Your task to perform on an android device: Open Google Chrome and click the shortcut for Amazon.com Image 0: 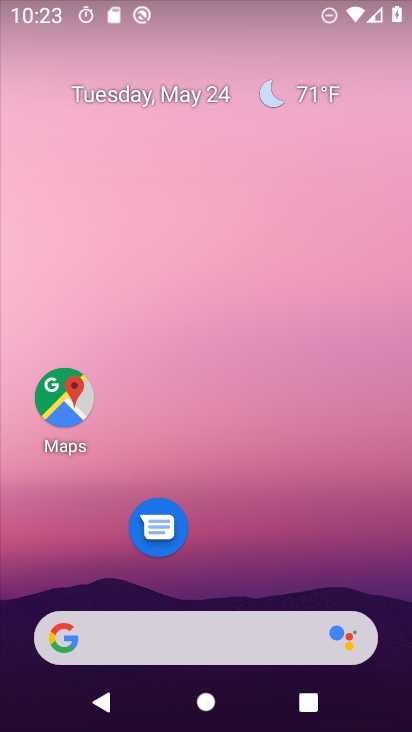
Step 0: drag from (271, 540) to (303, 112)
Your task to perform on an android device: Open Google Chrome and click the shortcut for Amazon.com Image 1: 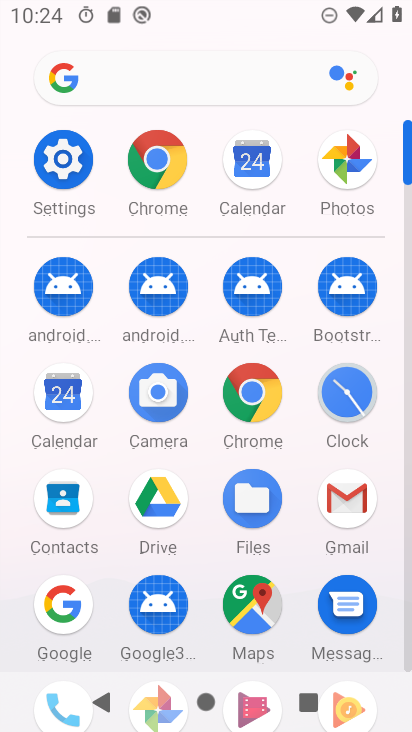
Step 1: click (256, 388)
Your task to perform on an android device: Open Google Chrome and click the shortcut for Amazon.com Image 2: 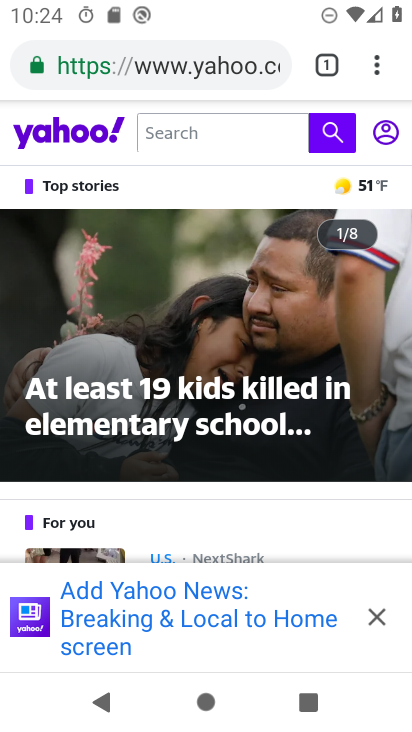
Step 2: press back button
Your task to perform on an android device: Open Google Chrome and click the shortcut for Amazon.com Image 3: 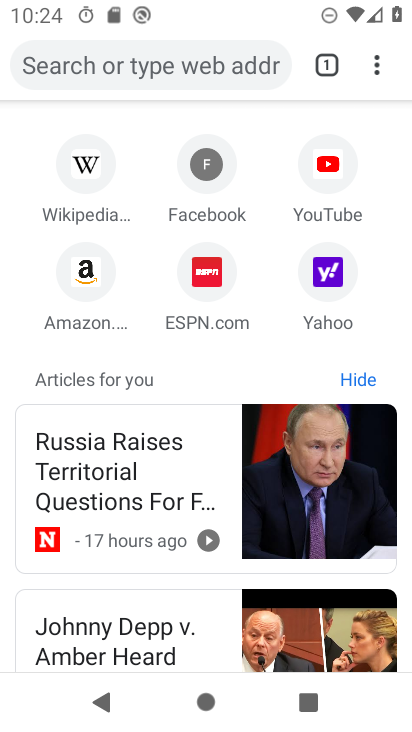
Step 3: click (83, 279)
Your task to perform on an android device: Open Google Chrome and click the shortcut for Amazon.com Image 4: 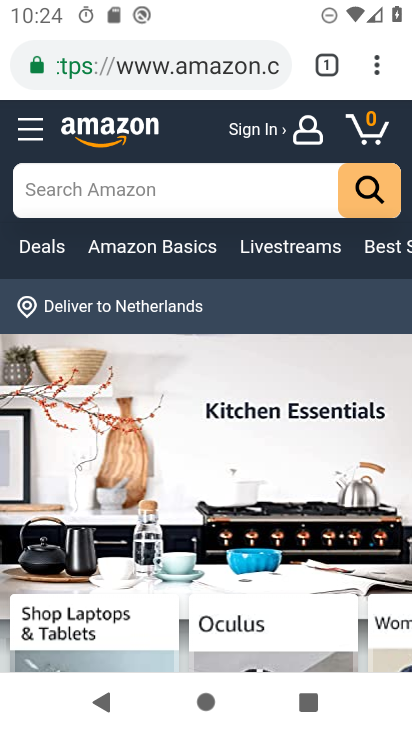
Step 4: task complete